Your task to perform on an android device: all mails in gmail Image 0: 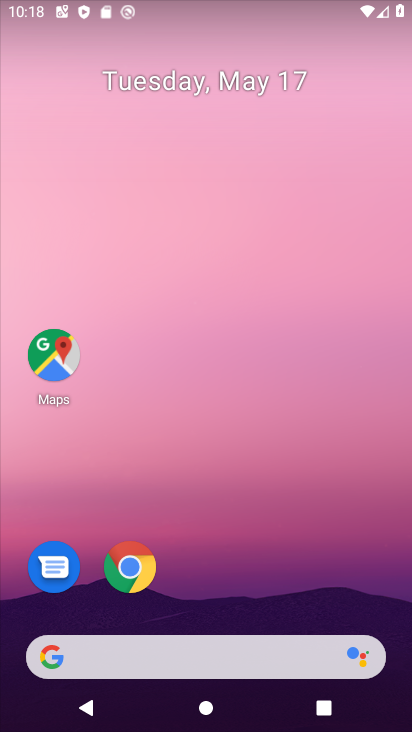
Step 0: drag from (251, 589) to (338, 8)
Your task to perform on an android device: all mails in gmail Image 1: 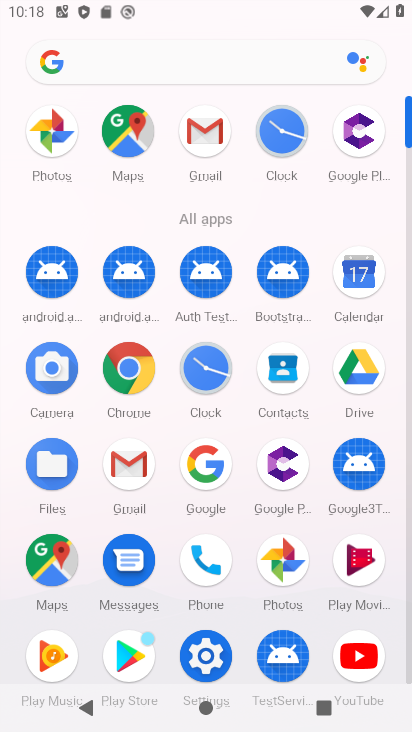
Step 1: drag from (250, 624) to (244, 237)
Your task to perform on an android device: all mails in gmail Image 2: 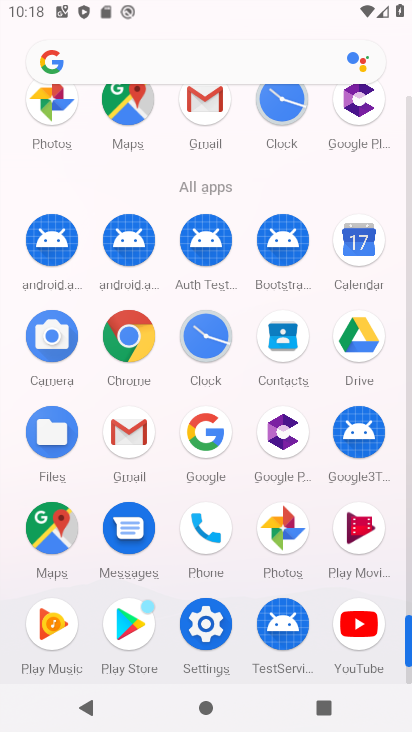
Step 2: drag from (246, 584) to (237, 393)
Your task to perform on an android device: all mails in gmail Image 3: 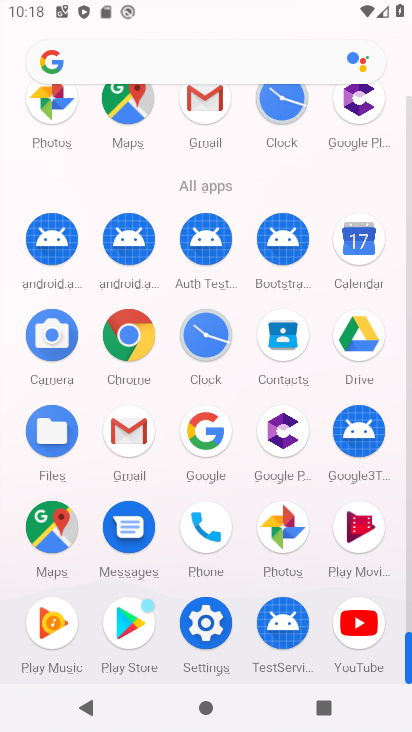
Step 3: click (141, 426)
Your task to perform on an android device: all mails in gmail Image 4: 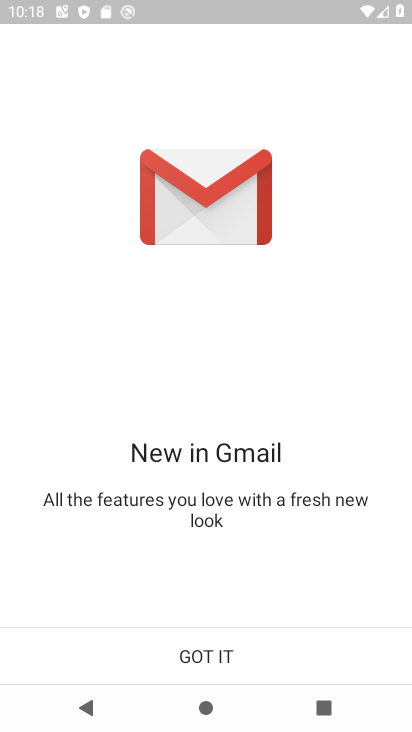
Step 4: click (220, 649)
Your task to perform on an android device: all mails in gmail Image 5: 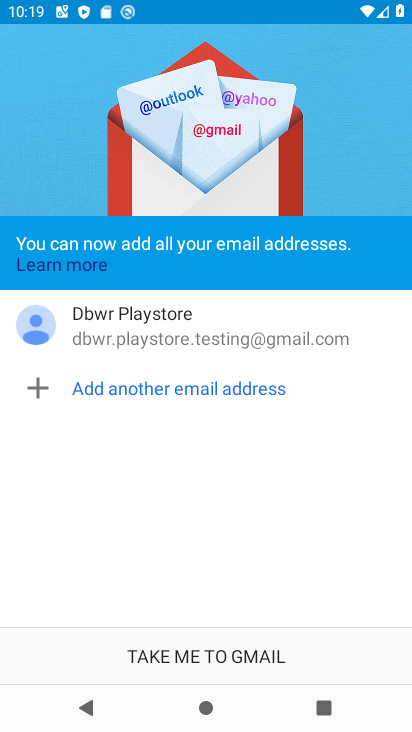
Step 5: click (194, 651)
Your task to perform on an android device: all mails in gmail Image 6: 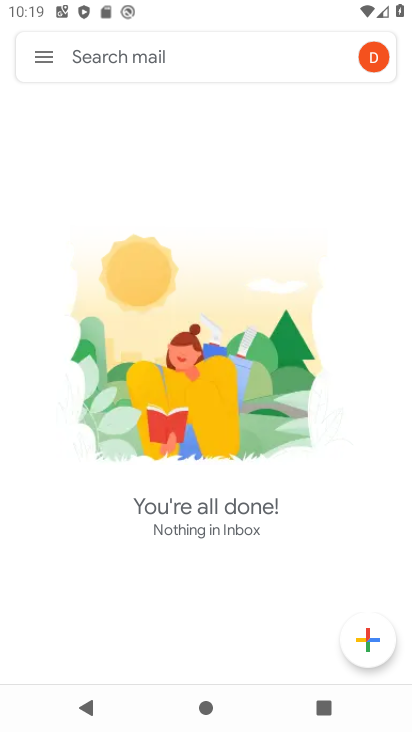
Step 6: click (50, 40)
Your task to perform on an android device: all mails in gmail Image 7: 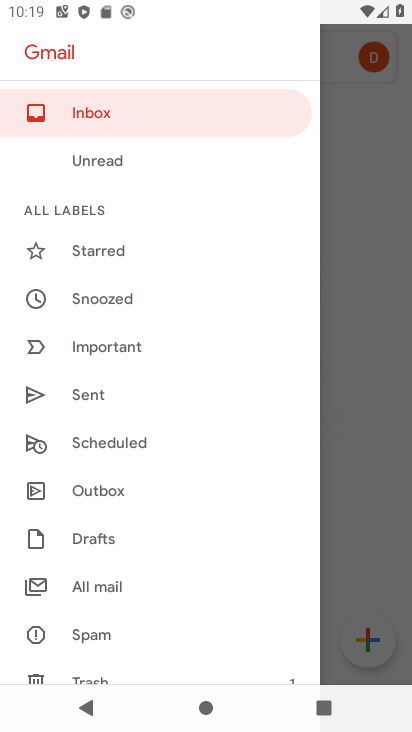
Step 7: click (136, 588)
Your task to perform on an android device: all mails in gmail Image 8: 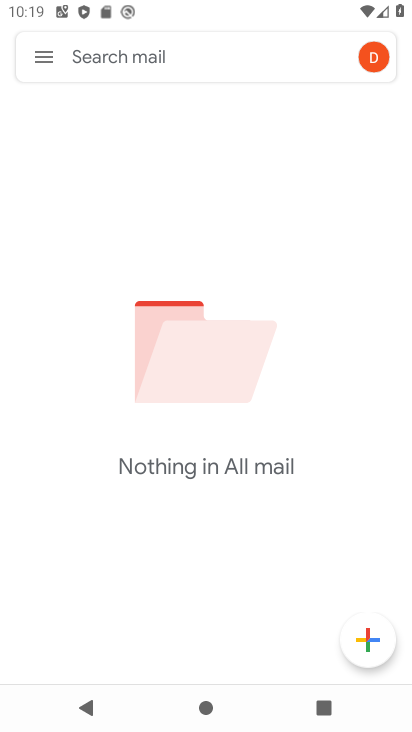
Step 8: task complete